Your task to perform on an android device: all mails in gmail Image 0: 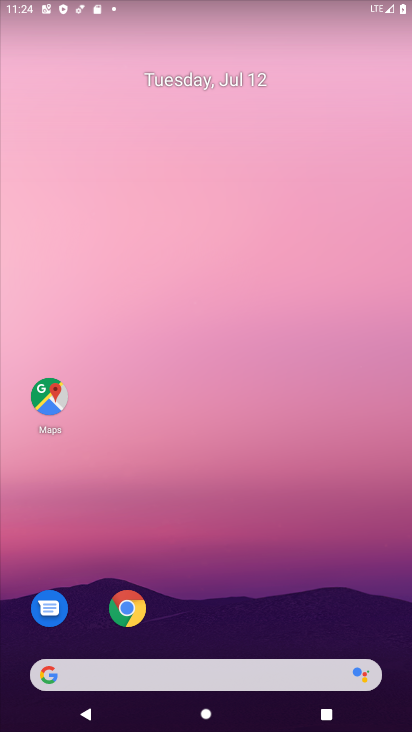
Step 0: drag from (236, 616) to (262, 73)
Your task to perform on an android device: all mails in gmail Image 1: 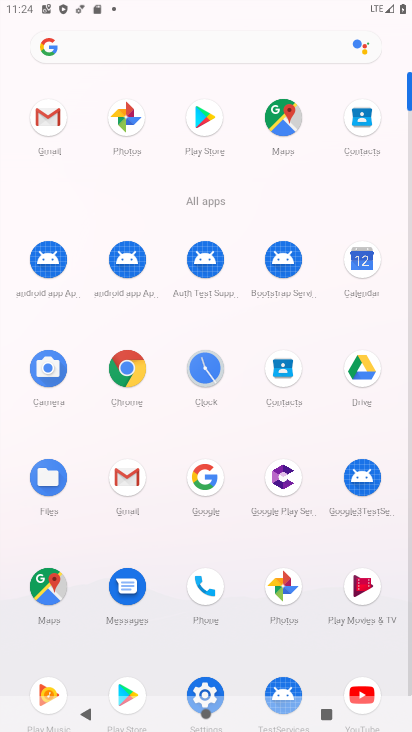
Step 1: click (54, 113)
Your task to perform on an android device: all mails in gmail Image 2: 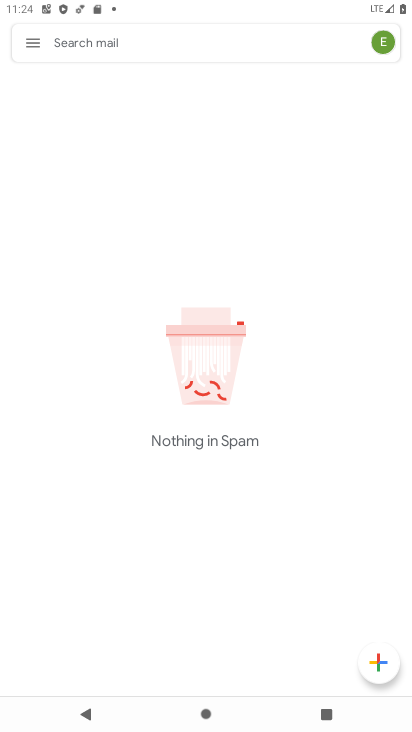
Step 2: click (40, 44)
Your task to perform on an android device: all mails in gmail Image 3: 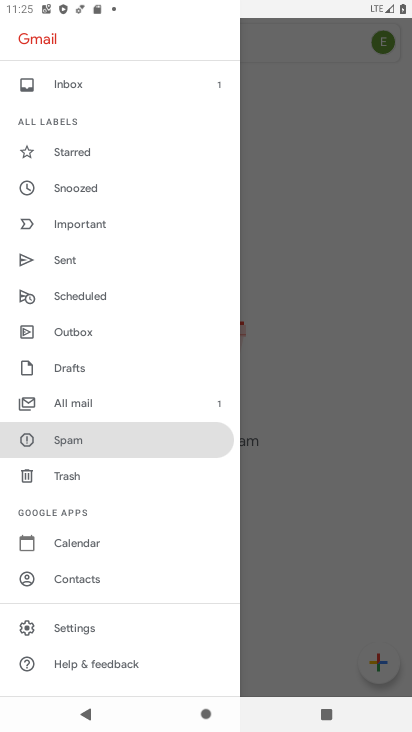
Step 3: click (35, 51)
Your task to perform on an android device: all mails in gmail Image 4: 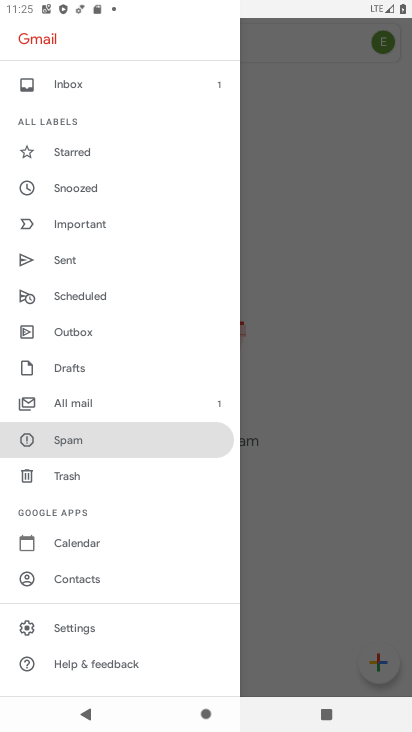
Step 4: click (107, 412)
Your task to perform on an android device: all mails in gmail Image 5: 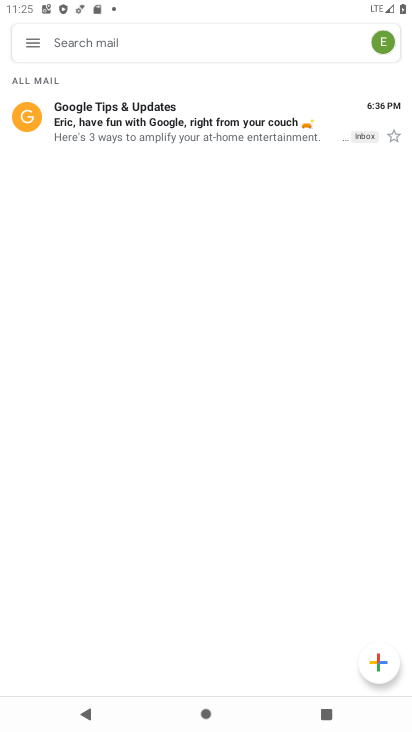
Step 5: task complete